Your task to perform on an android device: open device folders in google photos Image 0: 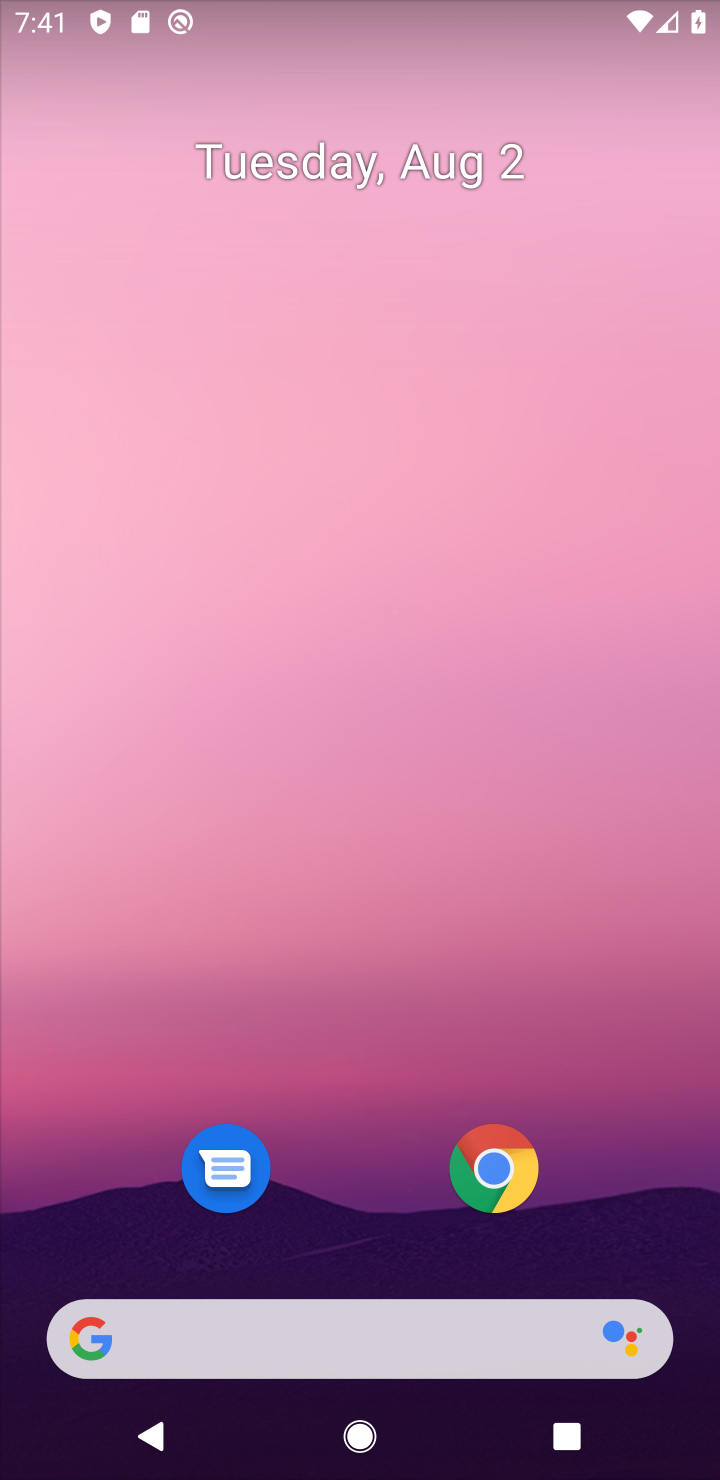
Step 0: drag from (642, 1215) to (621, 13)
Your task to perform on an android device: open device folders in google photos Image 1: 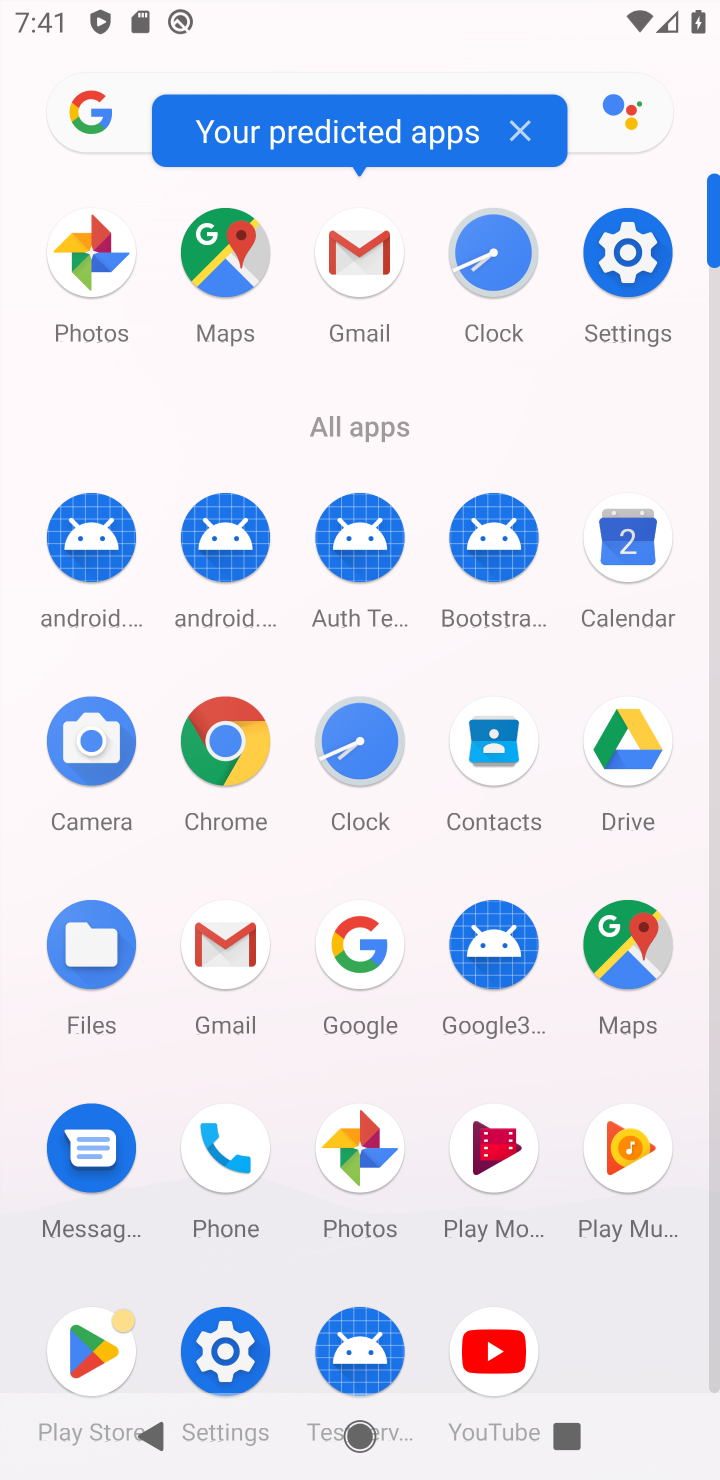
Step 1: click (361, 1167)
Your task to perform on an android device: open device folders in google photos Image 2: 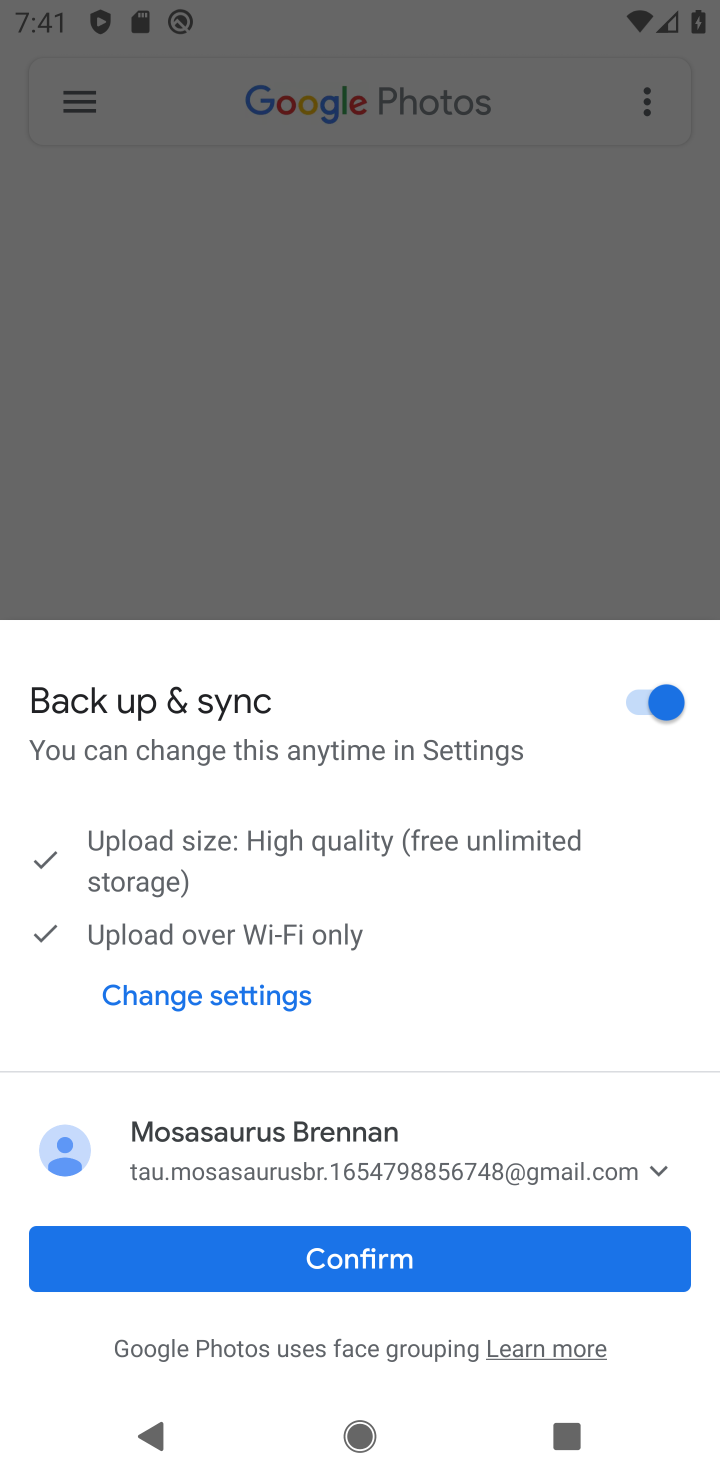
Step 2: click (82, 106)
Your task to perform on an android device: open device folders in google photos Image 3: 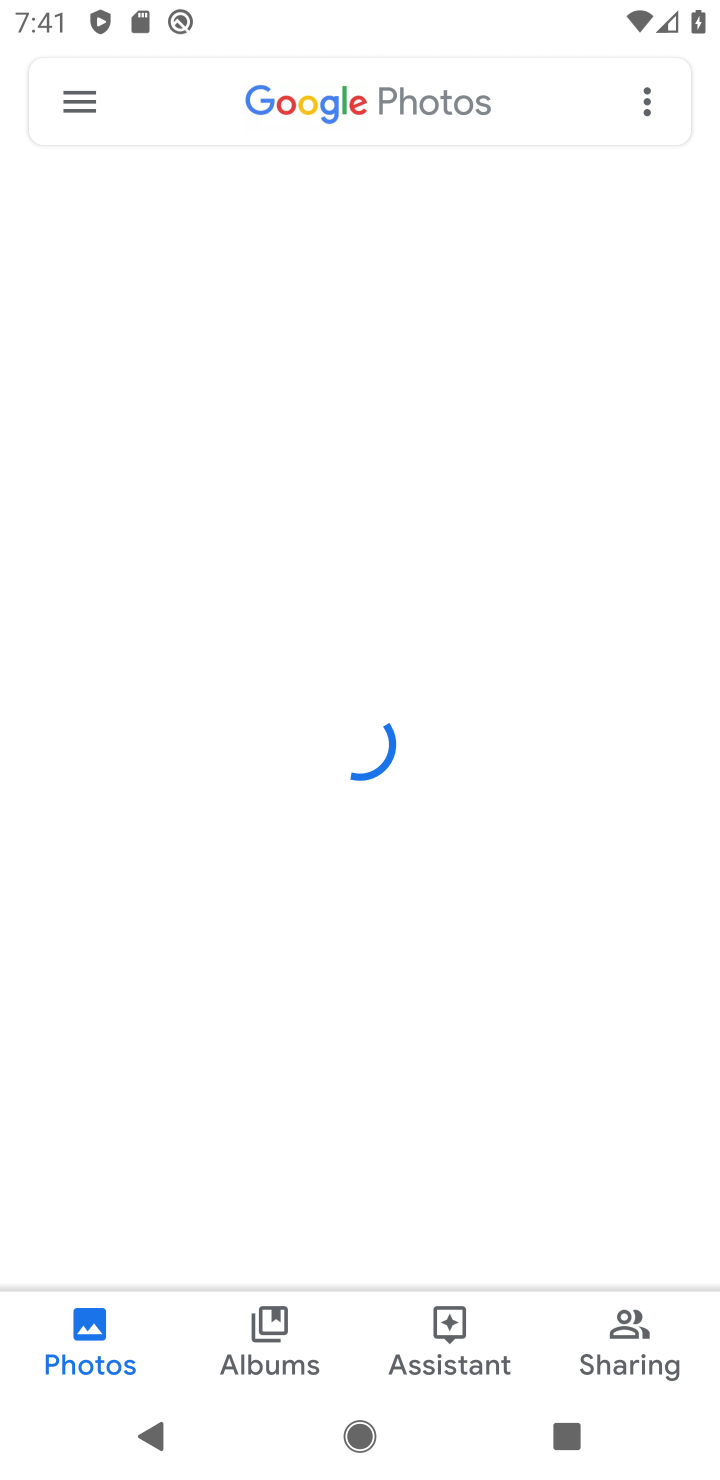
Step 3: click (445, 1263)
Your task to perform on an android device: open device folders in google photos Image 4: 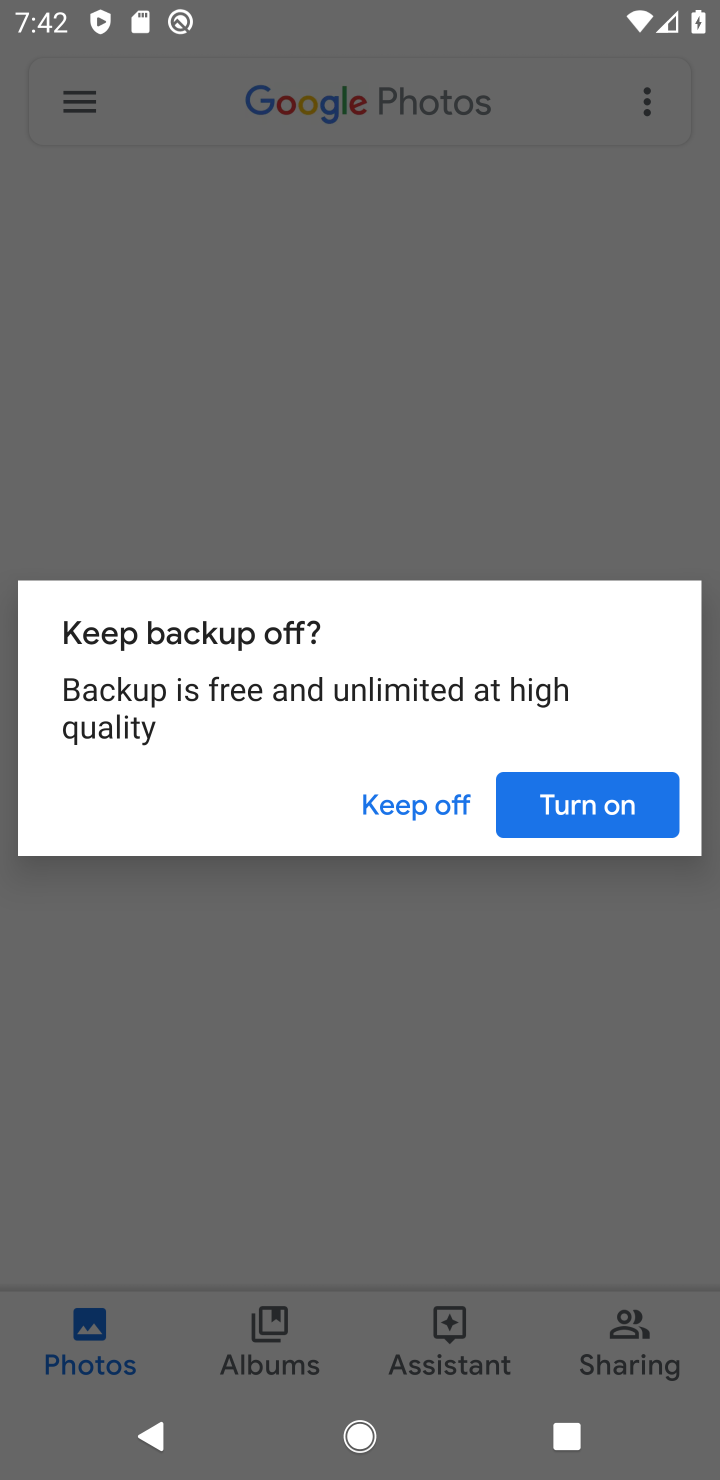
Step 4: click (575, 819)
Your task to perform on an android device: open device folders in google photos Image 5: 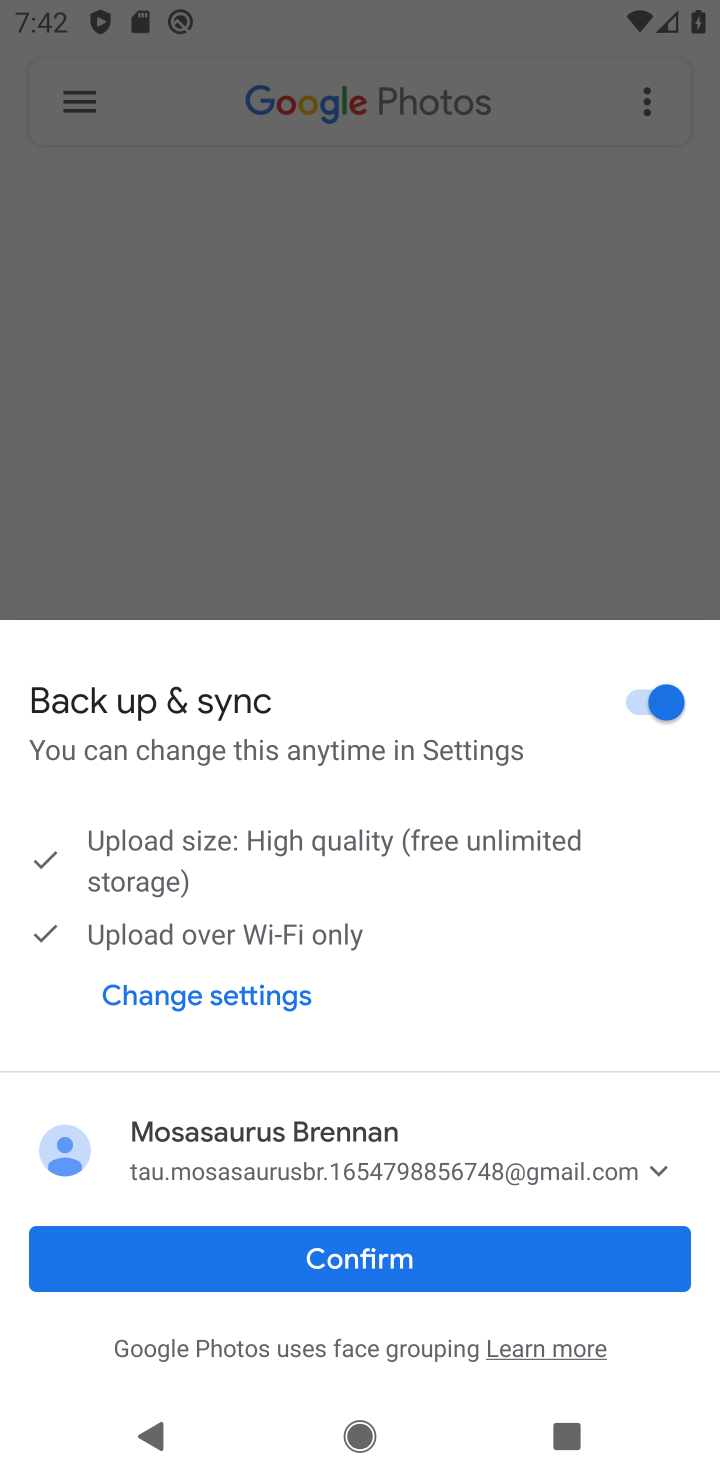
Step 5: click (332, 1305)
Your task to perform on an android device: open device folders in google photos Image 6: 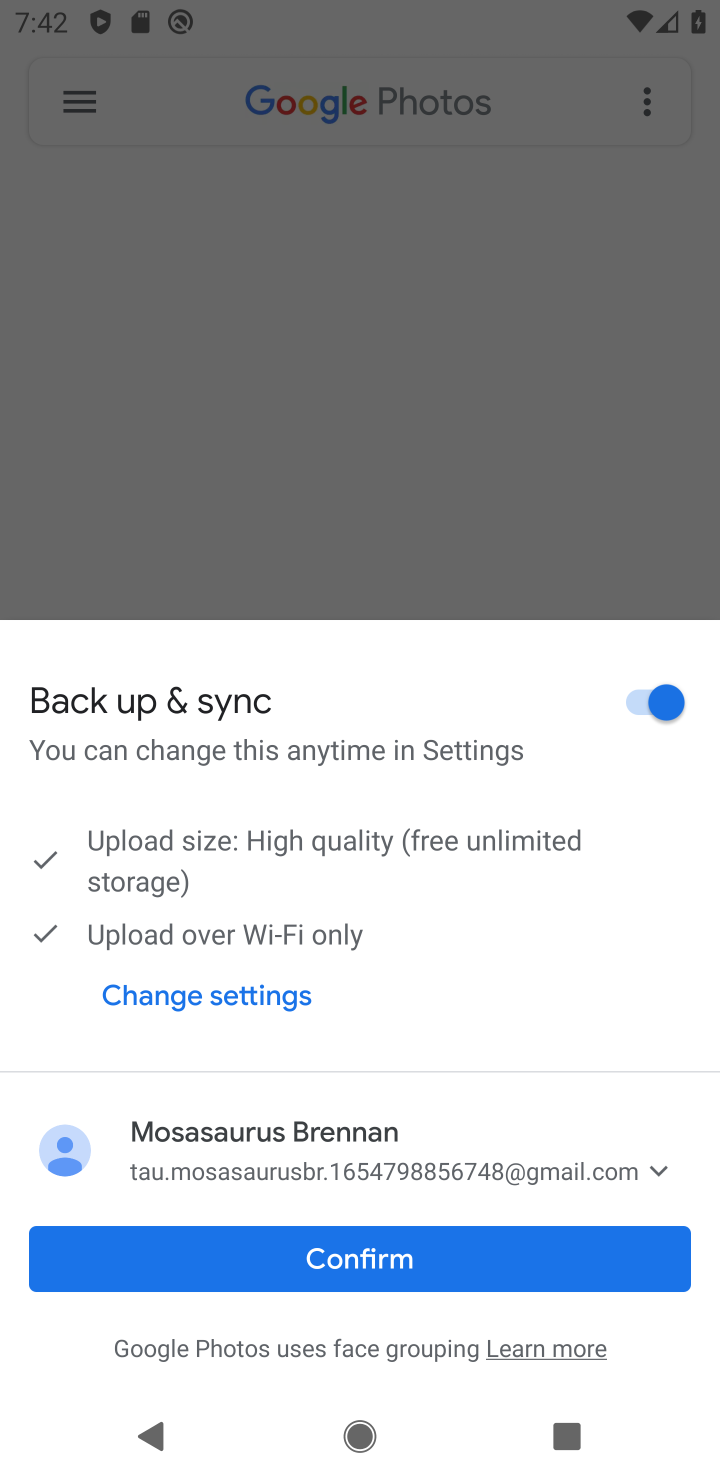
Step 6: click (321, 1267)
Your task to perform on an android device: open device folders in google photos Image 7: 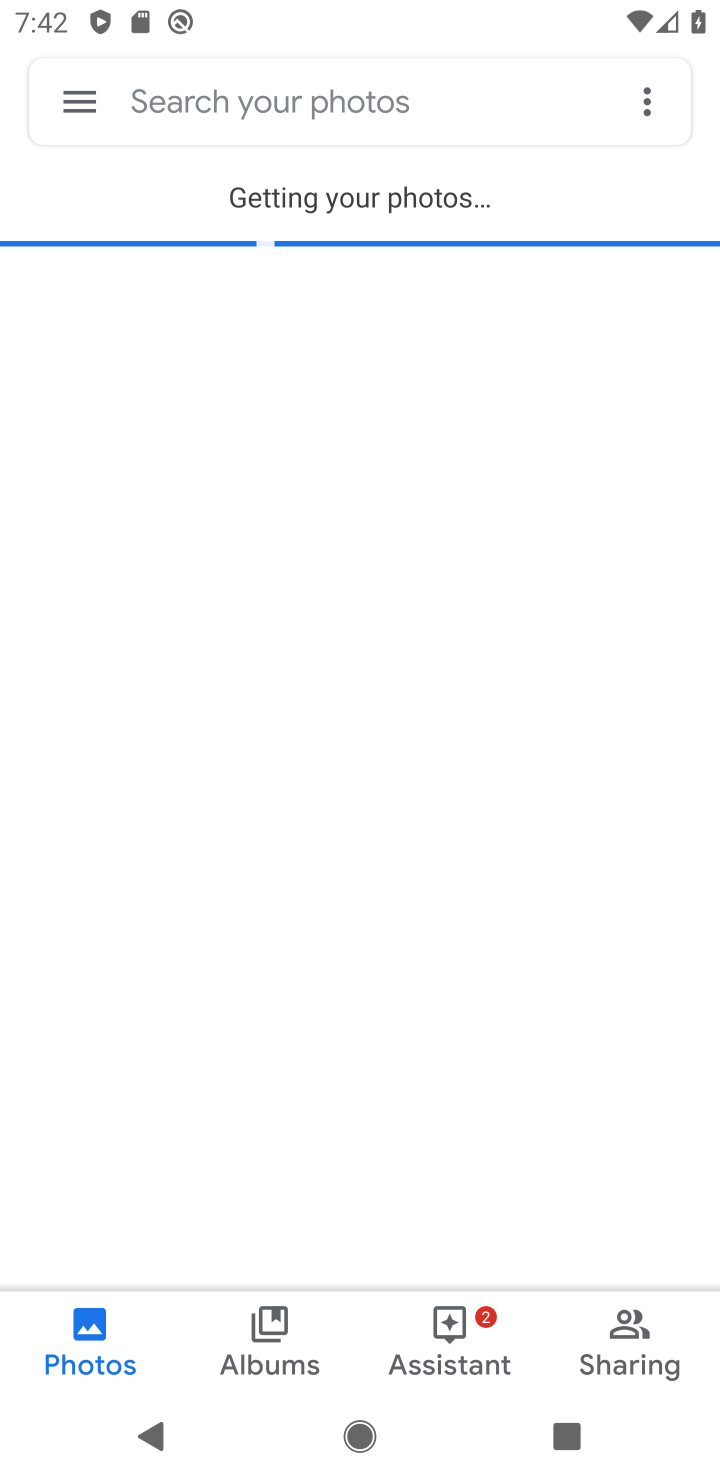
Step 7: click (73, 101)
Your task to perform on an android device: open device folders in google photos Image 8: 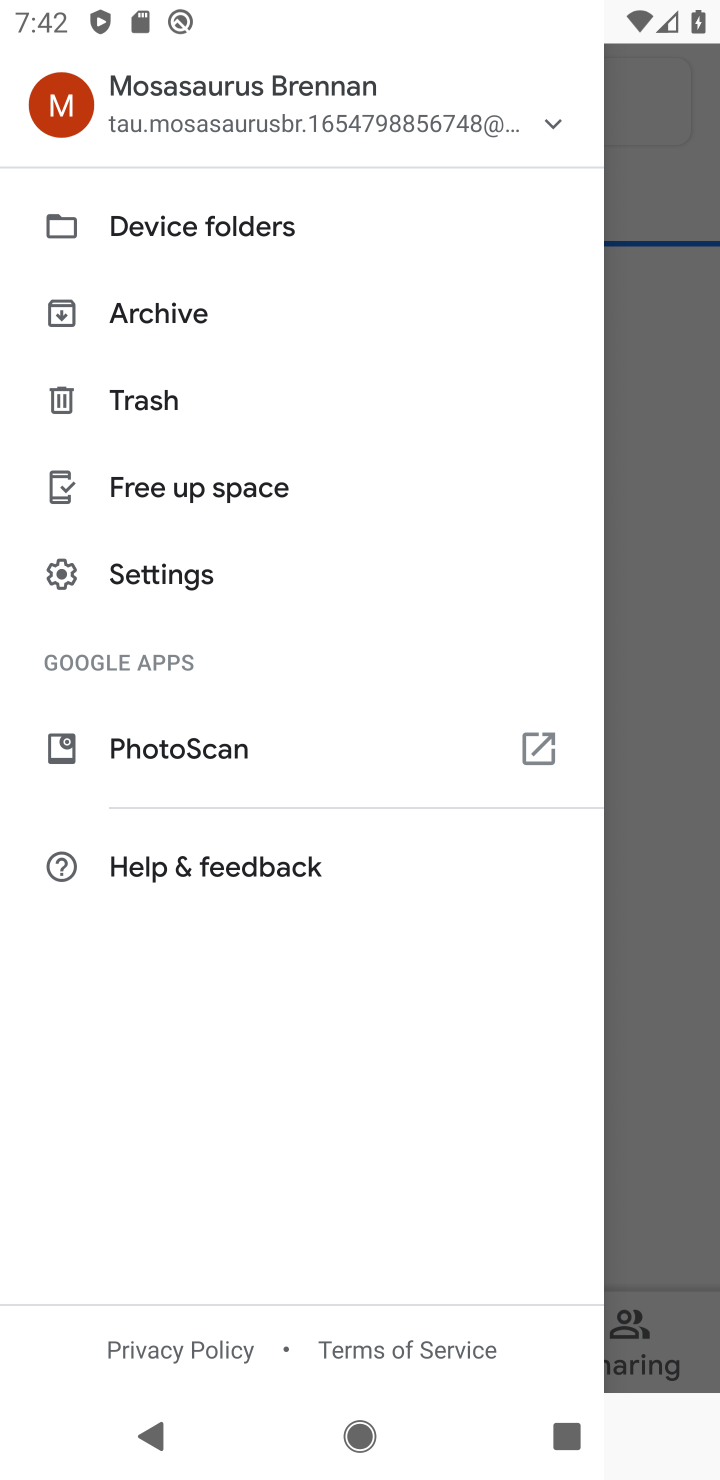
Step 8: click (178, 254)
Your task to perform on an android device: open device folders in google photos Image 9: 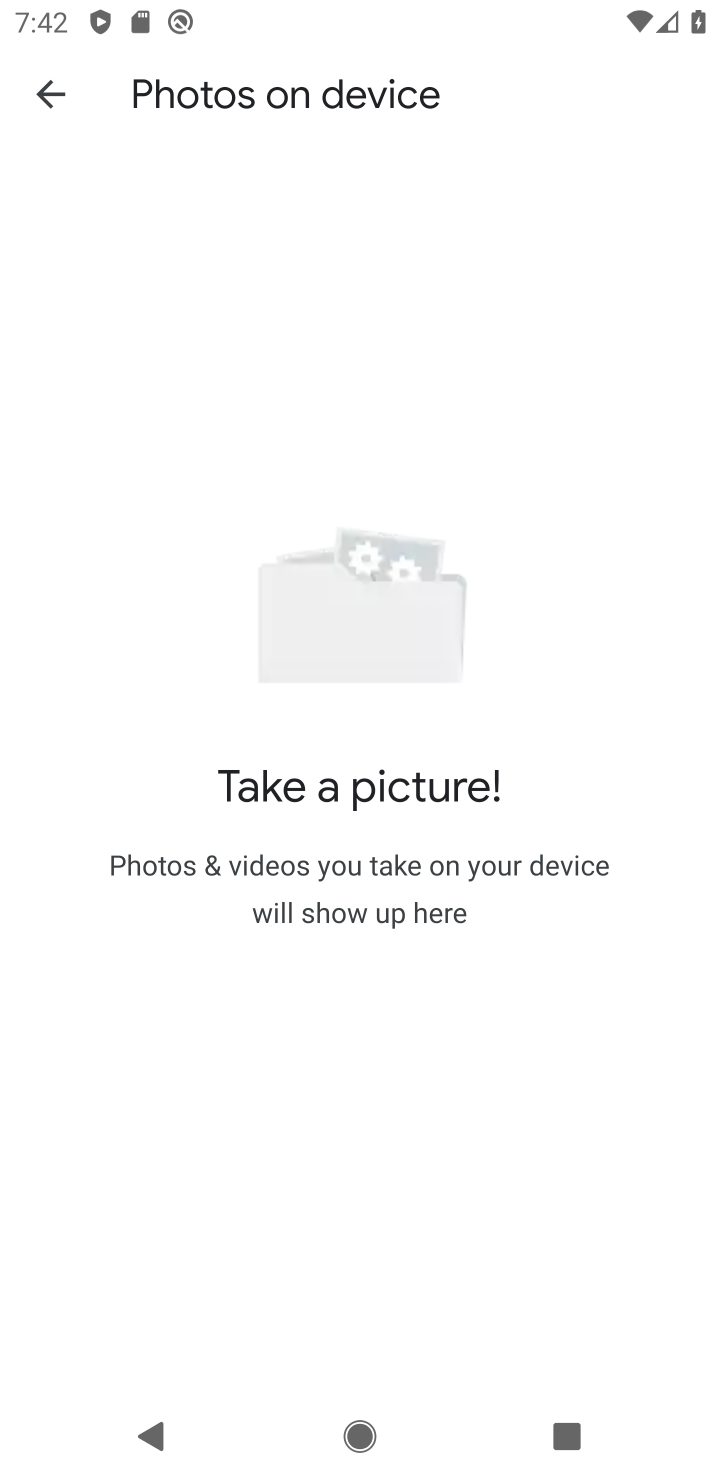
Step 9: task complete